Your task to perform on an android device: star an email in the gmail app Image 0: 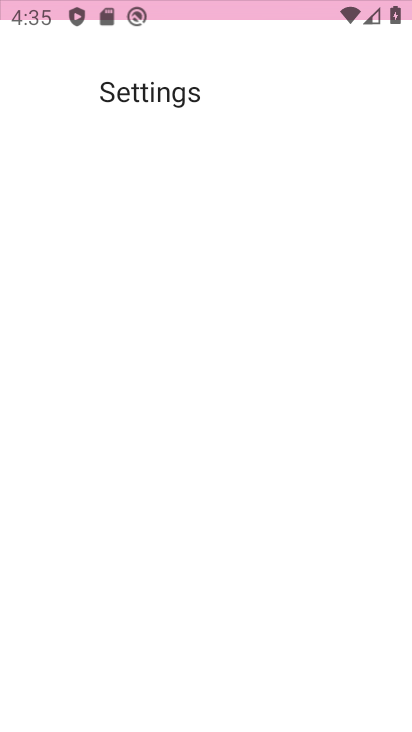
Step 0: click (224, 253)
Your task to perform on an android device: star an email in the gmail app Image 1: 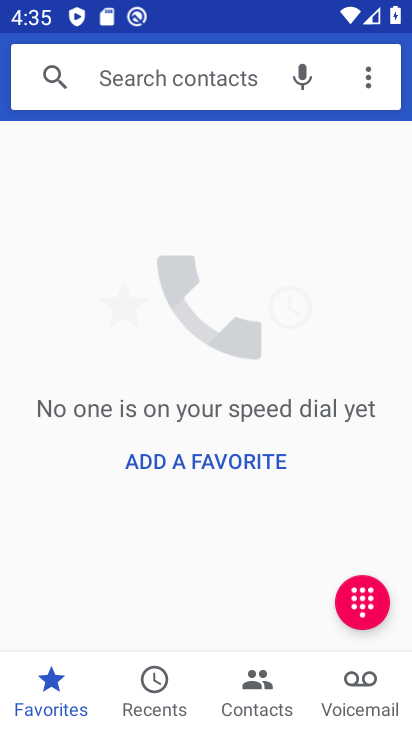
Step 1: press home button
Your task to perform on an android device: star an email in the gmail app Image 2: 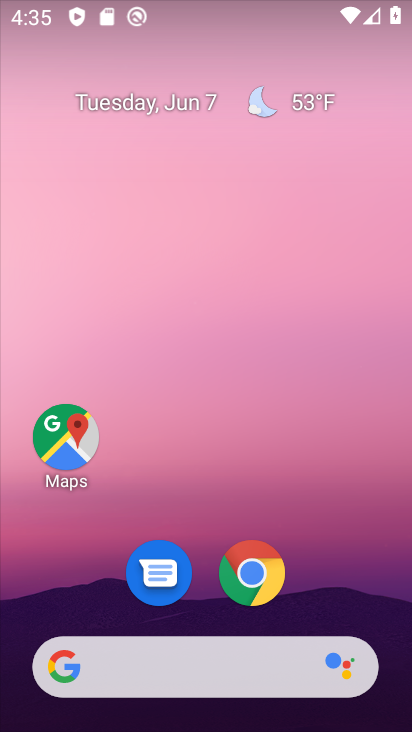
Step 2: drag from (188, 648) to (191, 227)
Your task to perform on an android device: star an email in the gmail app Image 3: 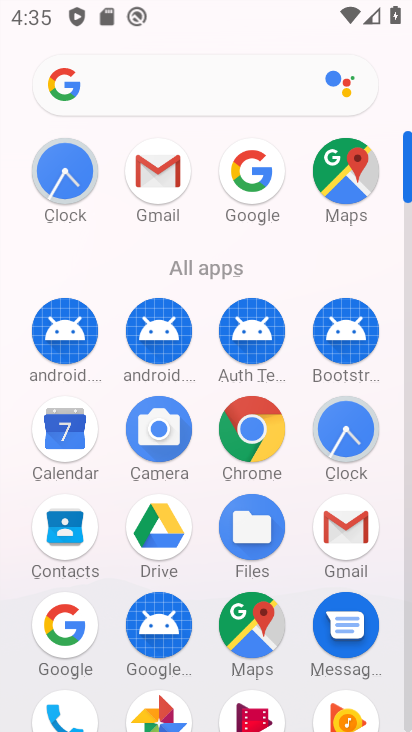
Step 3: click (142, 185)
Your task to perform on an android device: star an email in the gmail app Image 4: 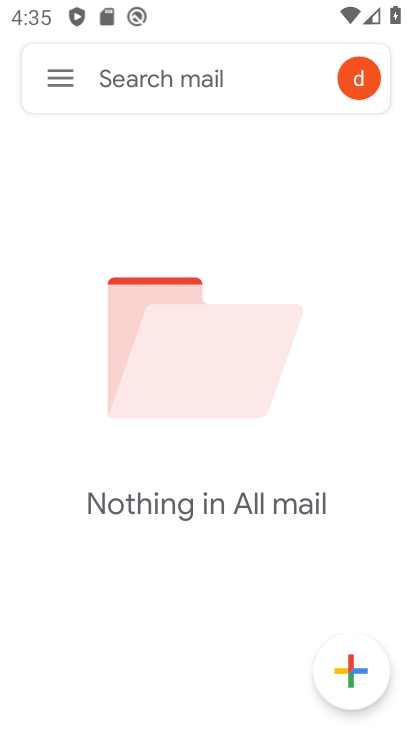
Step 4: click (55, 69)
Your task to perform on an android device: star an email in the gmail app Image 5: 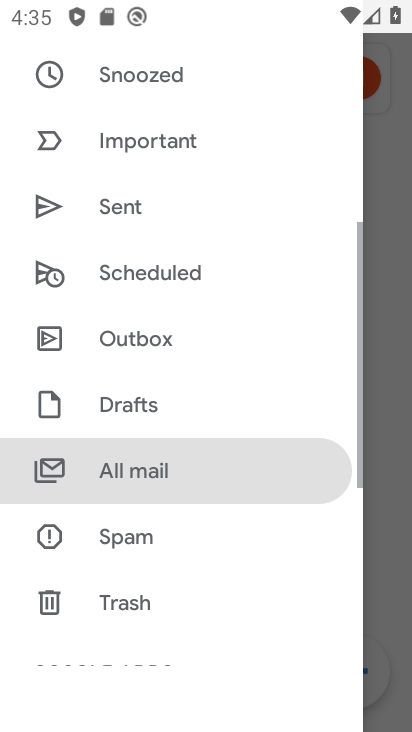
Step 5: drag from (136, 275) to (140, 512)
Your task to perform on an android device: star an email in the gmail app Image 6: 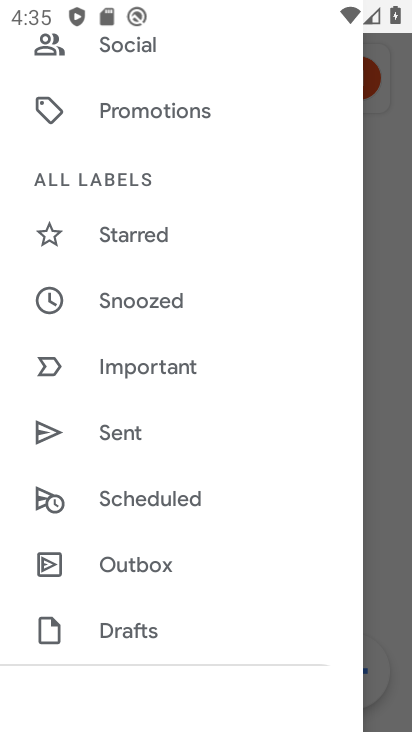
Step 6: drag from (150, 110) to (155, 522)
Your task to perform on an android device: star an email in the gmail app Image 7: 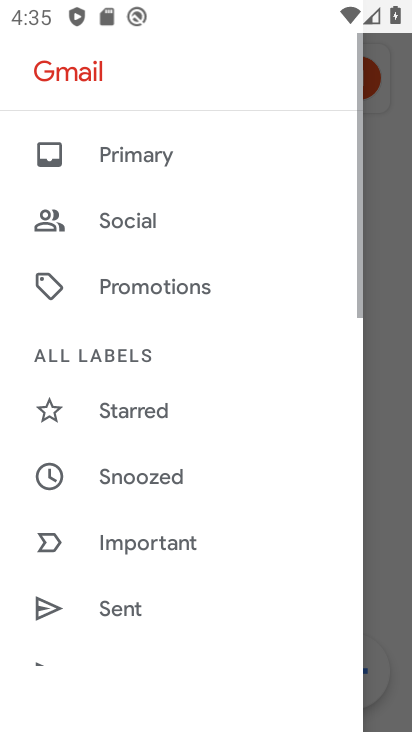
Step 7: click (128, 156)
Your task to perform on an android device: star an email in the gmail app Image 8: 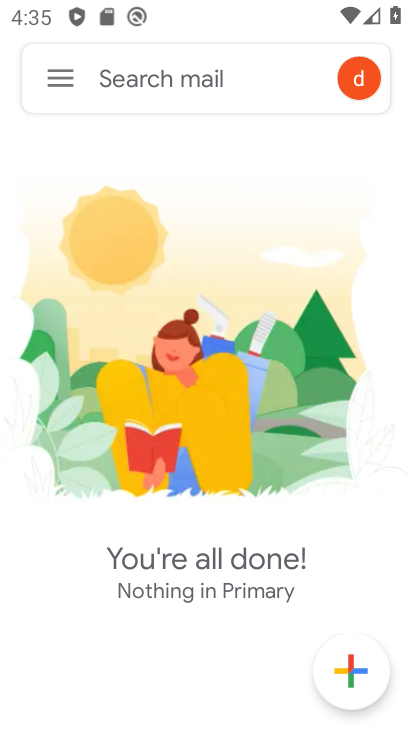
Step 8: task complete